Your task to perform on an android device: Search for pizza restaurants on Maps Image 0: 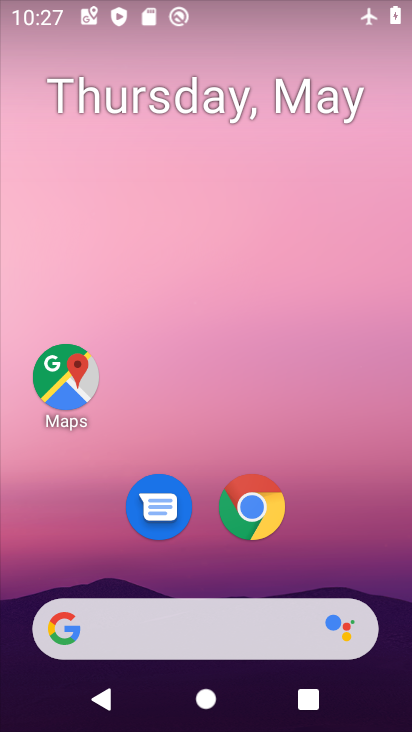
Step 0: drag from (205, 646) to (271, 57)
Your task to perform on an android device: Search for pizza restaurants on Maps Image 1: 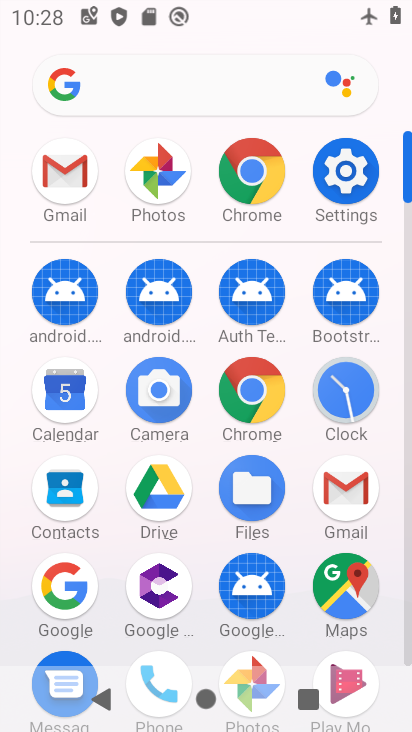
Step 1: click (352, 593)
Your task to perform on an android device: Search for pizza restaurants on Maps Image 2: 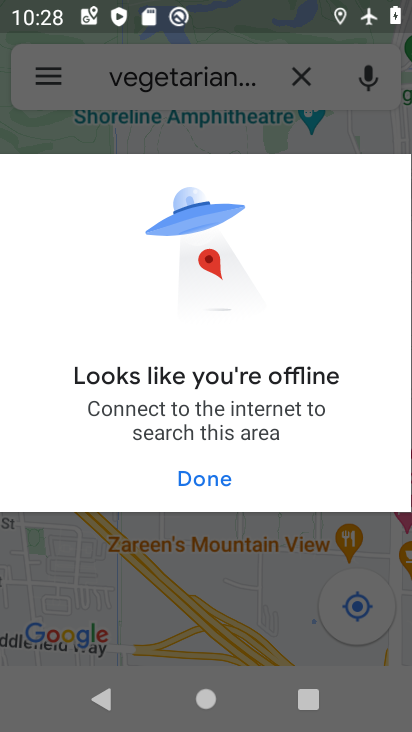
Step 2: click (216, 480)
Your task to perform on an android device: Search for pizza restaurants on Maps Image 3: 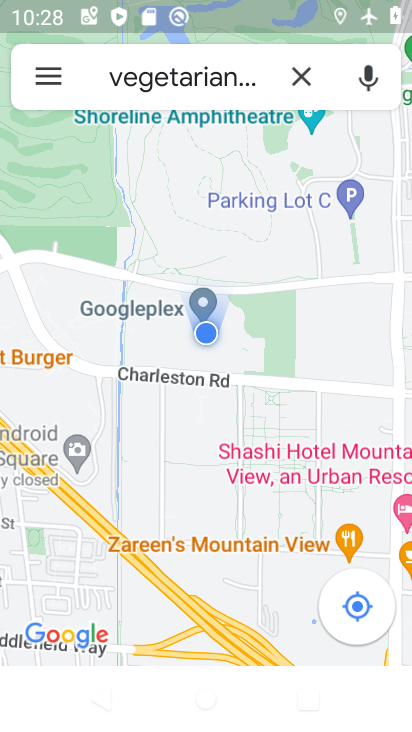
Step 3: click (297, 72)
Your task to perform on an android device: Search for pizza restaurants on Maps Image 4: 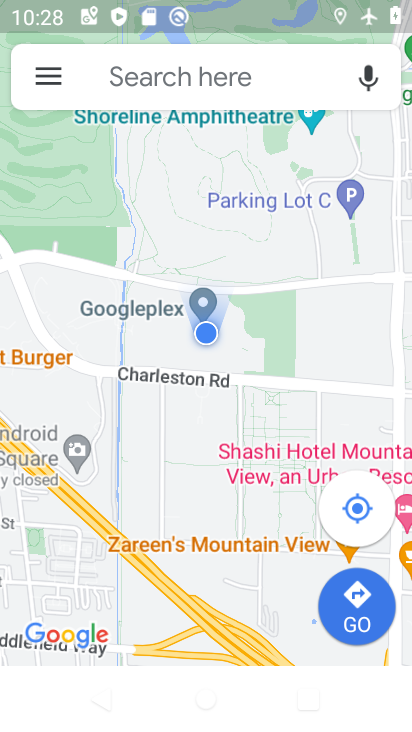
Step 4: click (228, 79)
Your task to perform on an android device: Search for pizza restaurants on Maps Image 5: 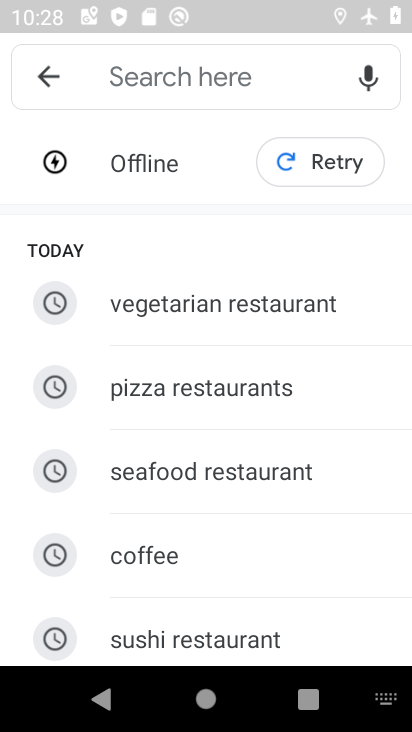
Step 5: drag from (262, 497) to (257, 228)
Your task to perform on an android device: Search for pizza restaurants on Maps Image 6: 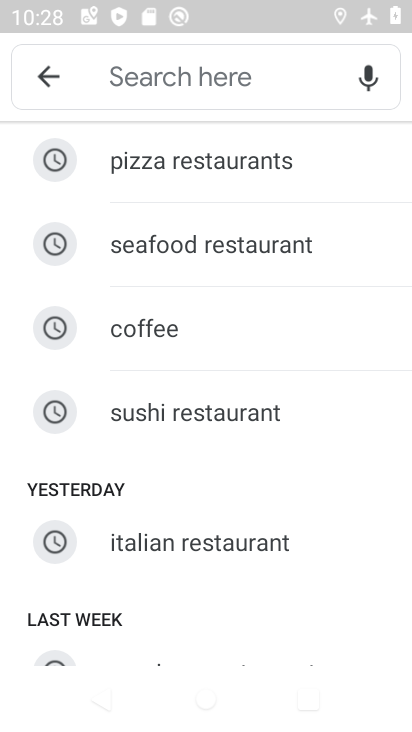
Step 6: drag from (257, 231) to (278, 489)
Your task to perform on an android device: Search for pizza restaurants on Maps Image 7: 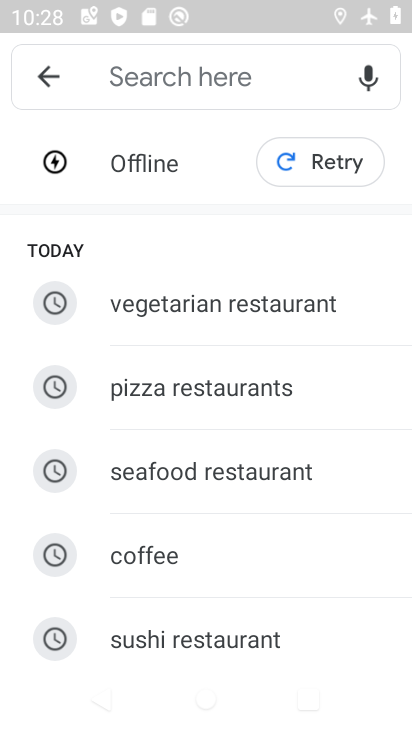
Step 7: click (246, 401)
Your task to perform on an android device: Search for pizza restaurants on Maps Image 8: 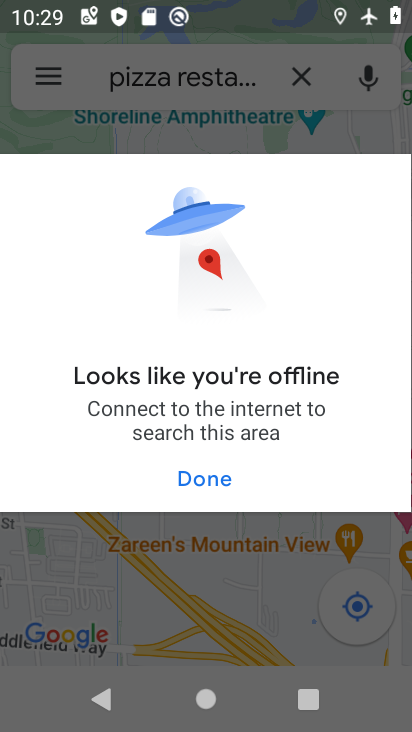
Step 8: task complete